Your task to perform on an android device: Open the phone app and click the voicemail tab. Image 0: 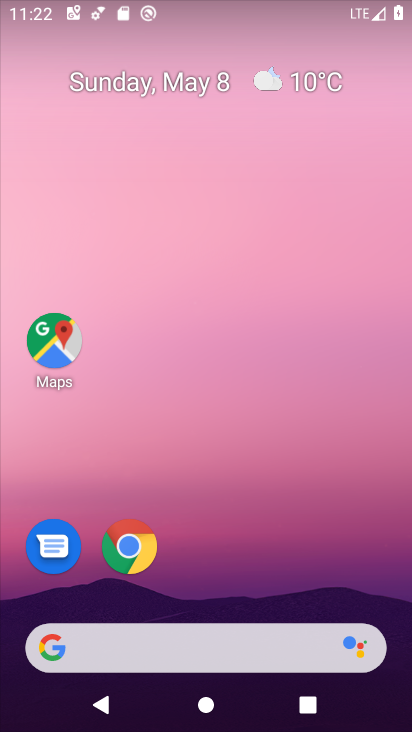
Step 0: drag from (394, 626) to (327, 114)
Your task to perform on an android device: Open the phone app and click the voicemail tab. Image 1: 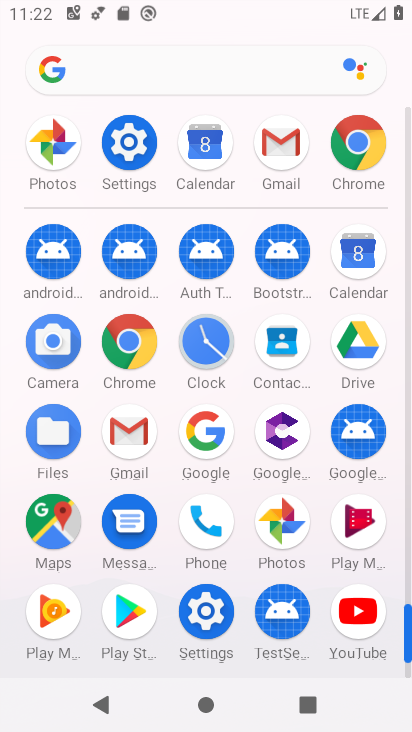
Step 1: click (201, 523)
Your task to perform on an android device: Open the phone app and click the voicemail tab. Image 2: 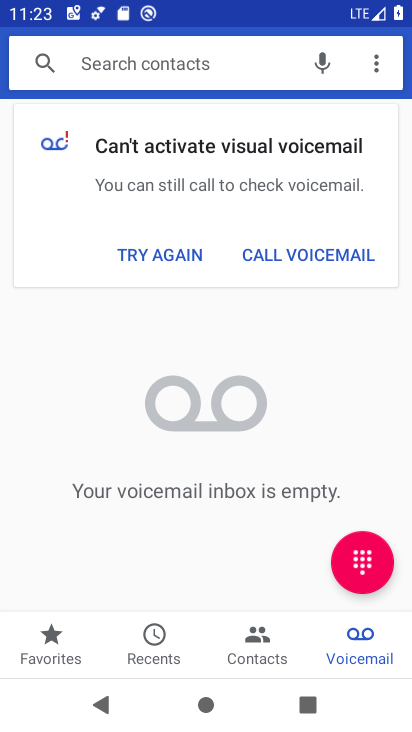
Step 2: task complete